Your task to perform on an android device: Search for the best rated 4K TV on Best Buy. Image 0: 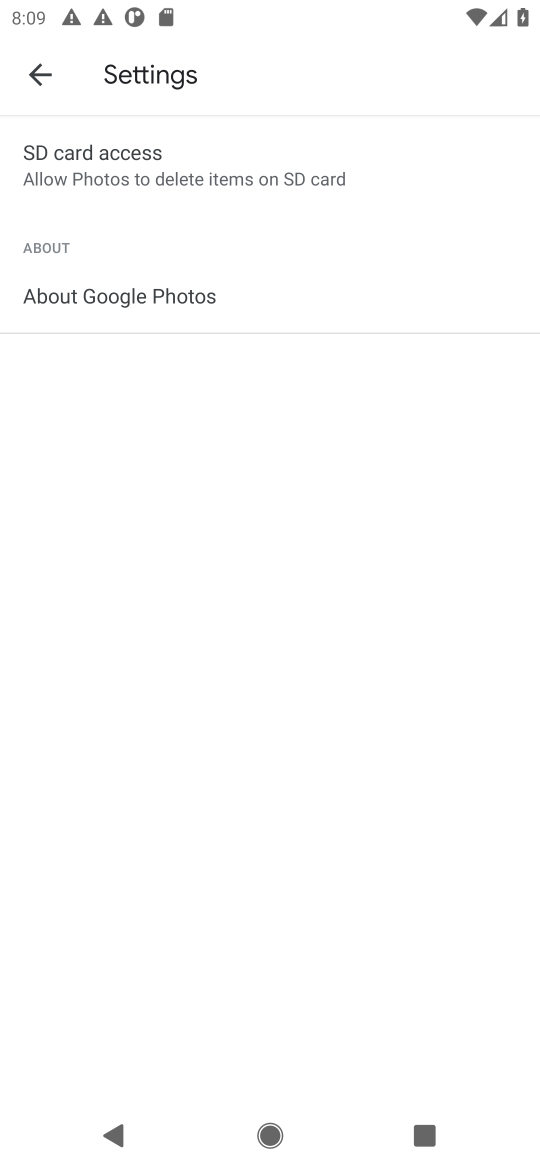
Step 0: press home button
Your task to perform on an android device: Search for the best rated 4K TV on Best Buy. Image 1: 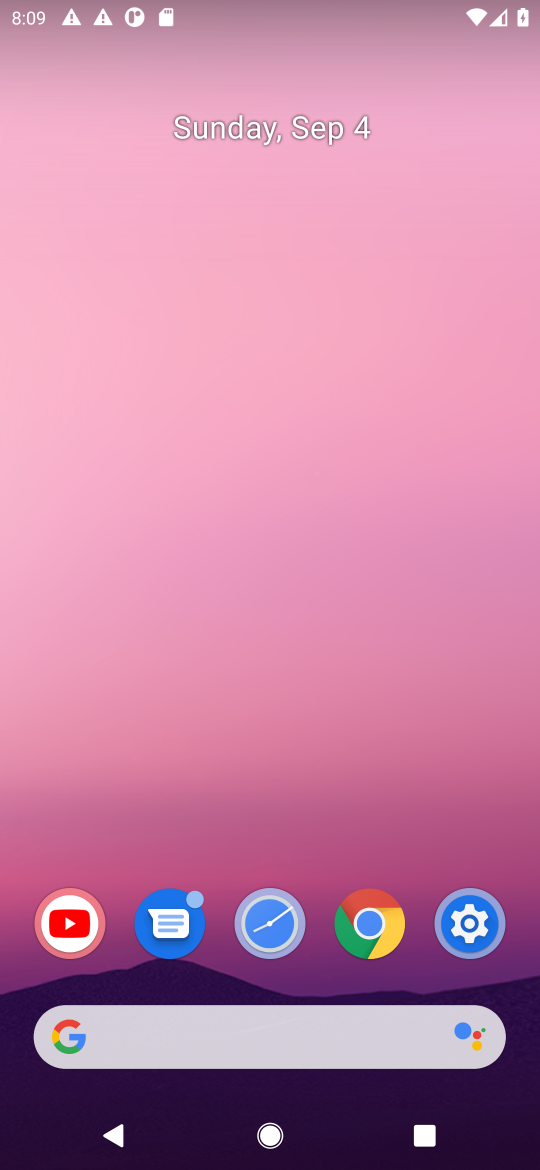
Step 1: click (384, 933)
Your task to perform on an android device: Search for the best rated 4K TV on Best Buy. Image 2: 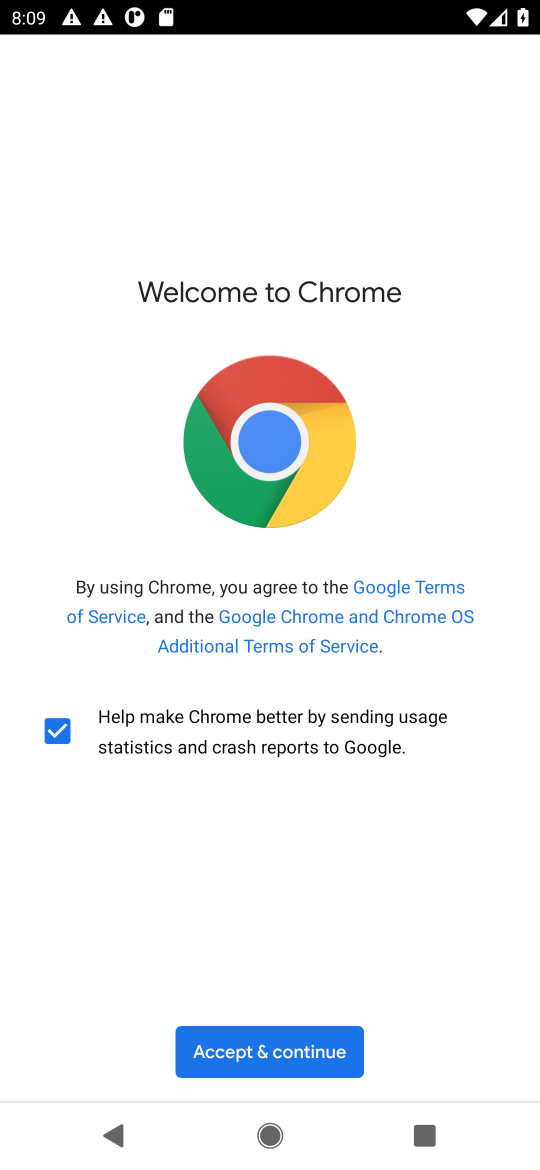
Step 2: click (260, 1063)
Your task to perform on an android device: Search for the best rated 4K TV on Best Buy. Image 3: 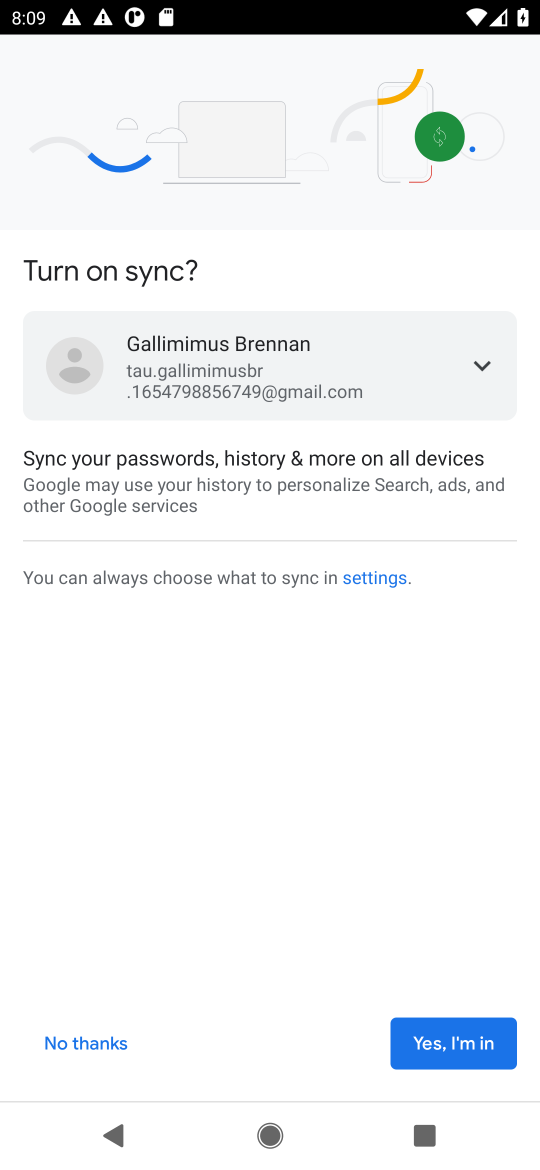
Step 3: click (465, 1021)
Your task to perform on an android device: Search for the best rated 4K TV on Best Buy. Image 4: 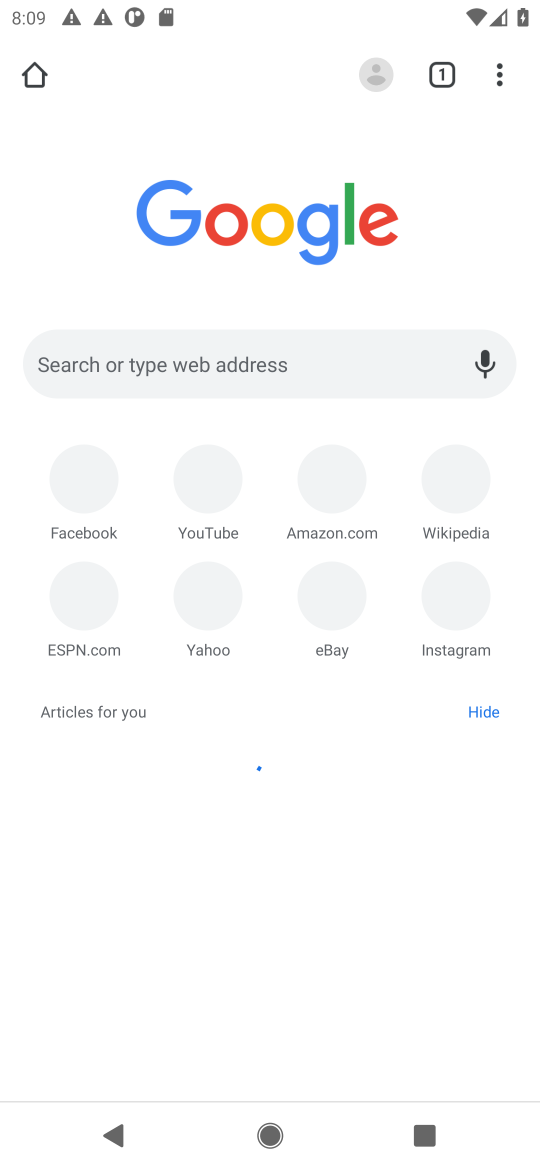
Step 4: click (295, 349)
Your task to perform on an android device: Search for the best rated 4K TV on Best Buy. Image 5: 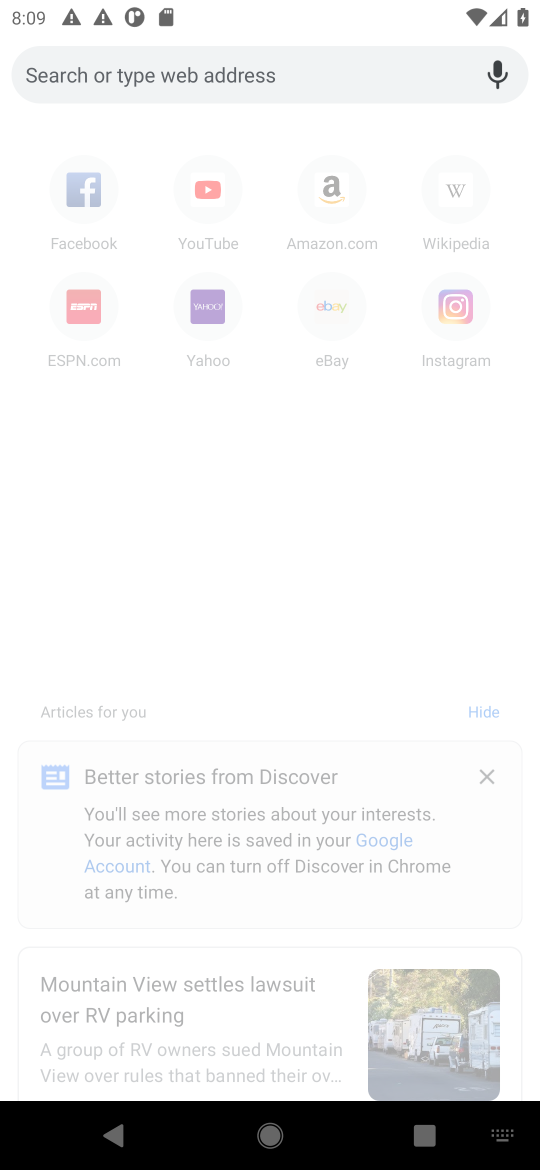
Step 5: click (220, 68)
Your task to perform on an android device: Search for the best rated 4K TV on Best Buy. Image 6: 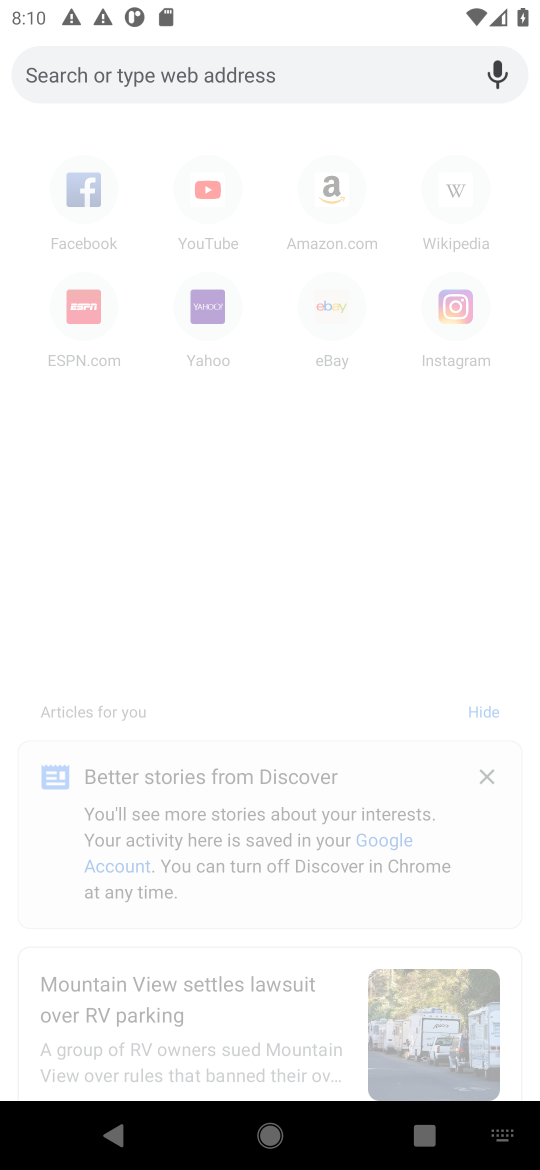
Step 6: type "bestbuy"
Your task to perform on an android device: Search for the best rated 4K TV on Best Buy. Image 7: 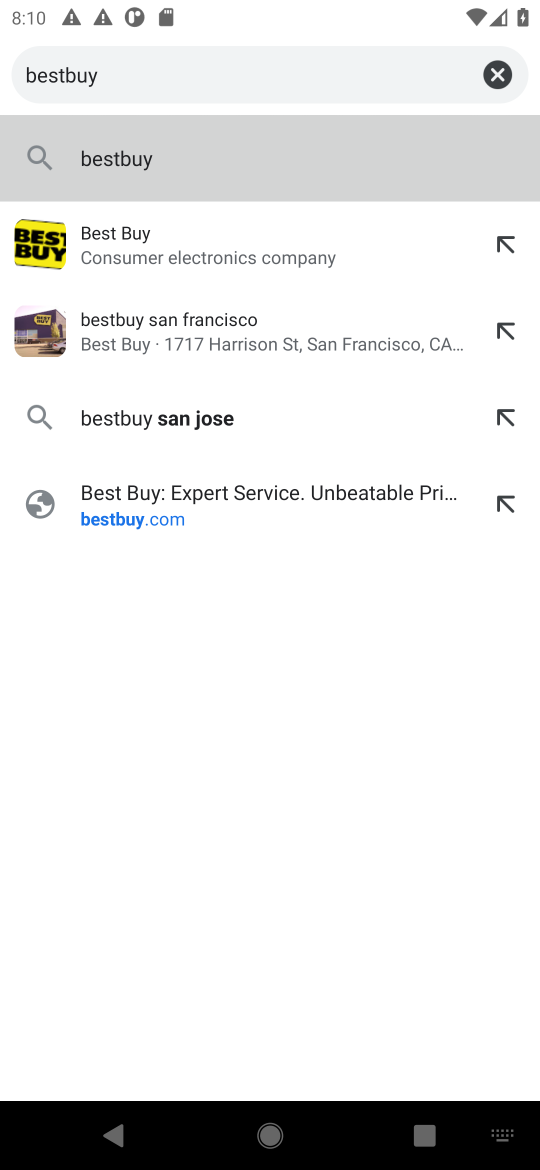
Step 7: click (149, 235)
Your task to perform on an android device: Search for the best rated 4K TV on Best Buy. Image 8: 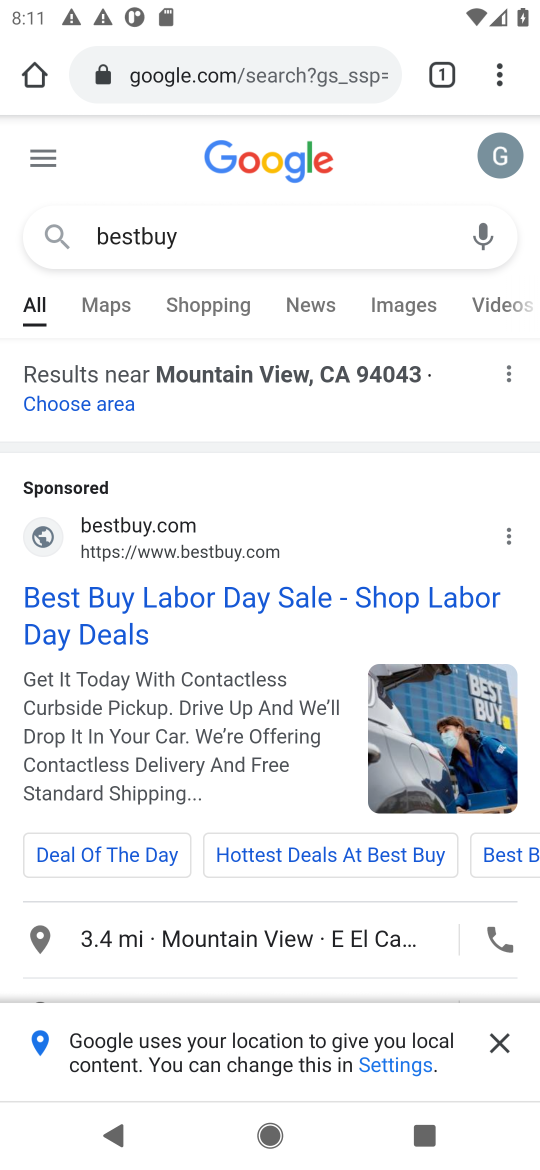
Step 8: click (266, 600)
Your task to perform on an android device: Search for the best rated 4K TV on Best Buy. Image 9: 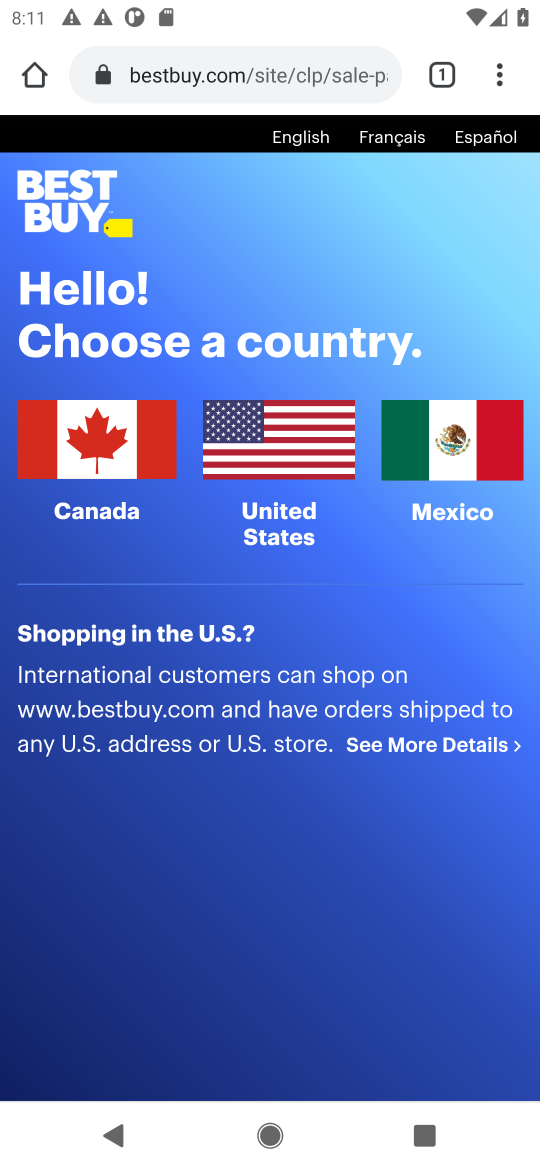
Step 9: click (278, 421)
Your task to perform on an android device: Search for the best rated 4K TV on Best Buy. Image 10: 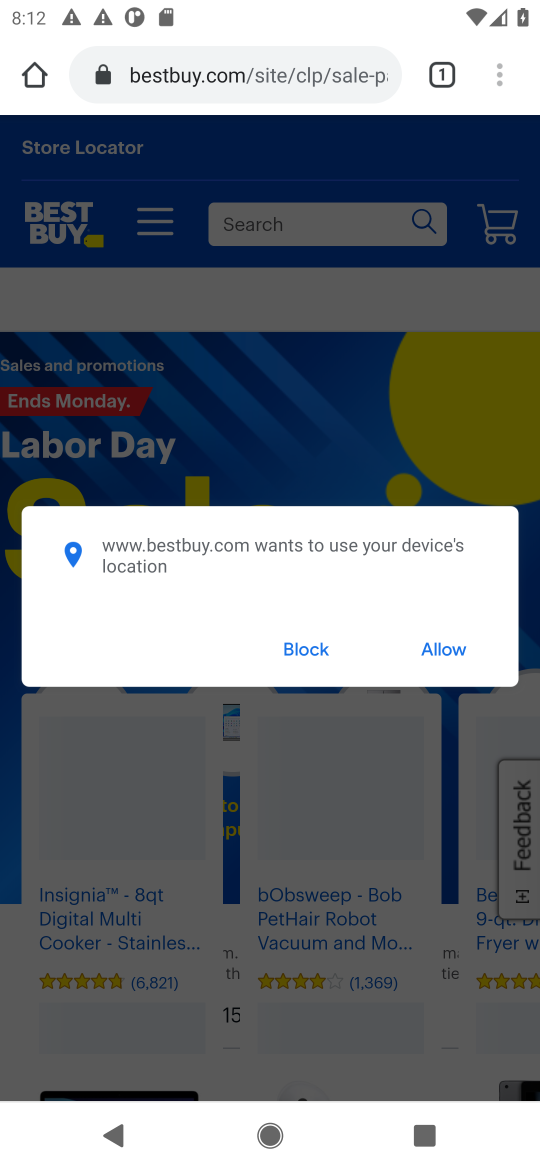
Step 10: click (452, 659)
Your task to perform on an android device: Search for the best rated 4K TV on Best Buy. Image 11: 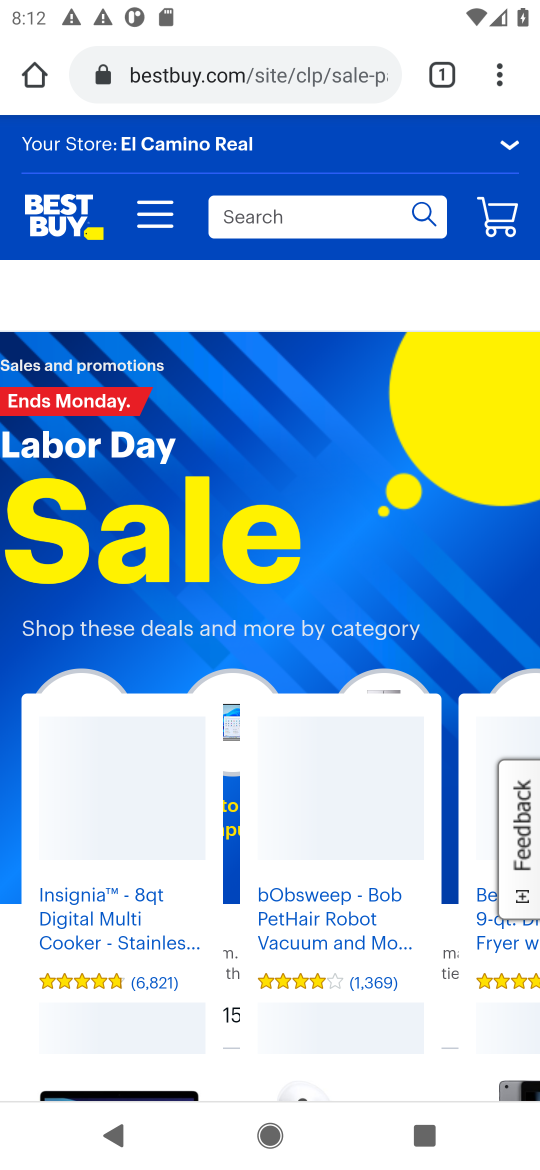
Step 11: click (376, 226)
Your task to perform on an android device: Search for the best rated 4K TV on Best Buy. Image 12: 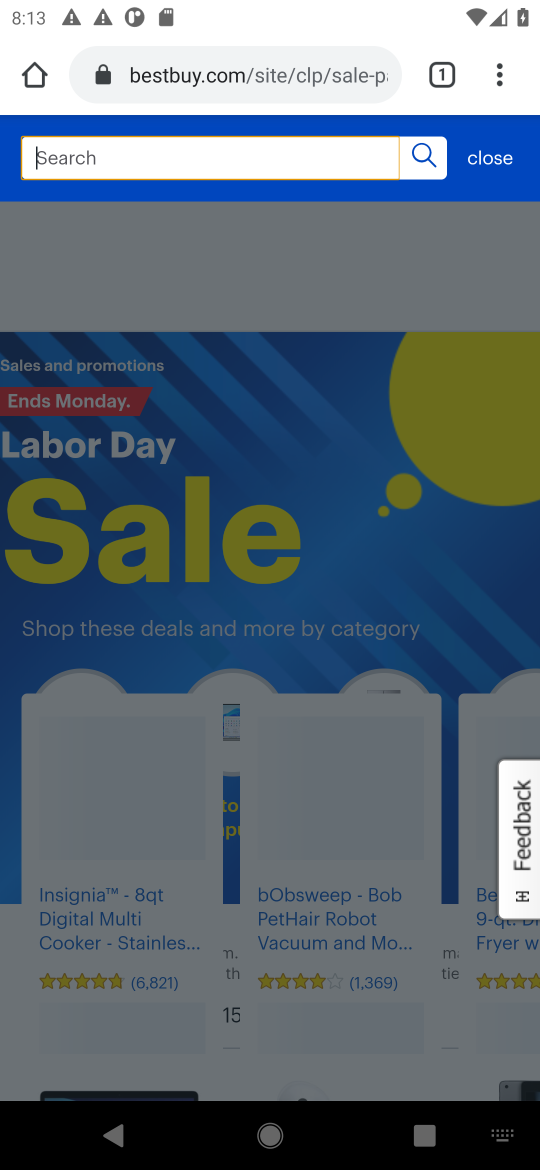
Step 12: type "4k tv"
Your task to perform on an android device: Search for the best rated 4K TV on Best Buy. Image 13: 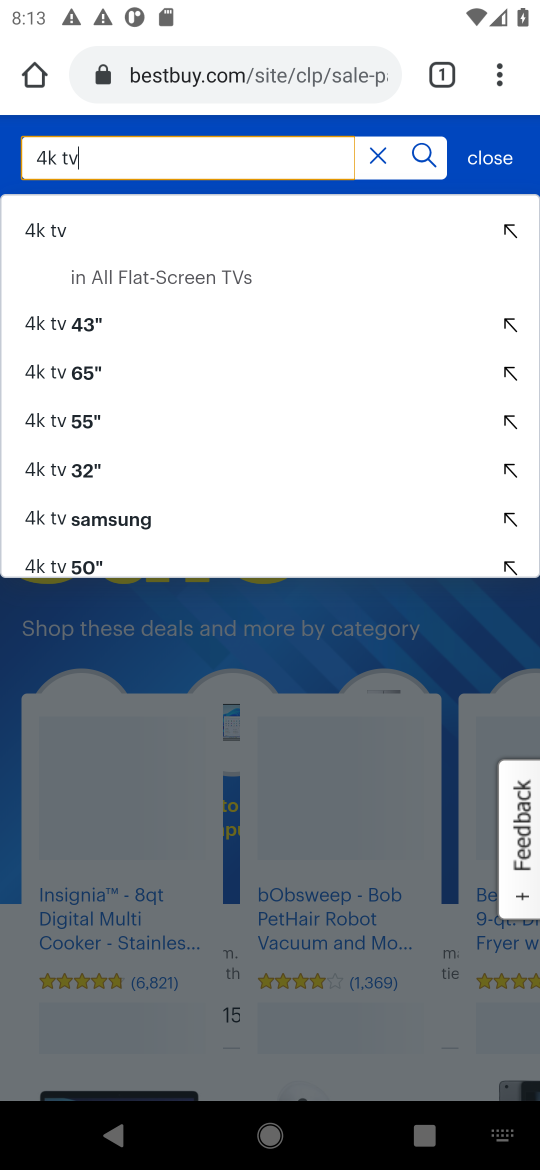
Step 13: click (430, 161)
Your task to perform on an android device: Search for the best rated 4K TV on Best Buy. Image 14: 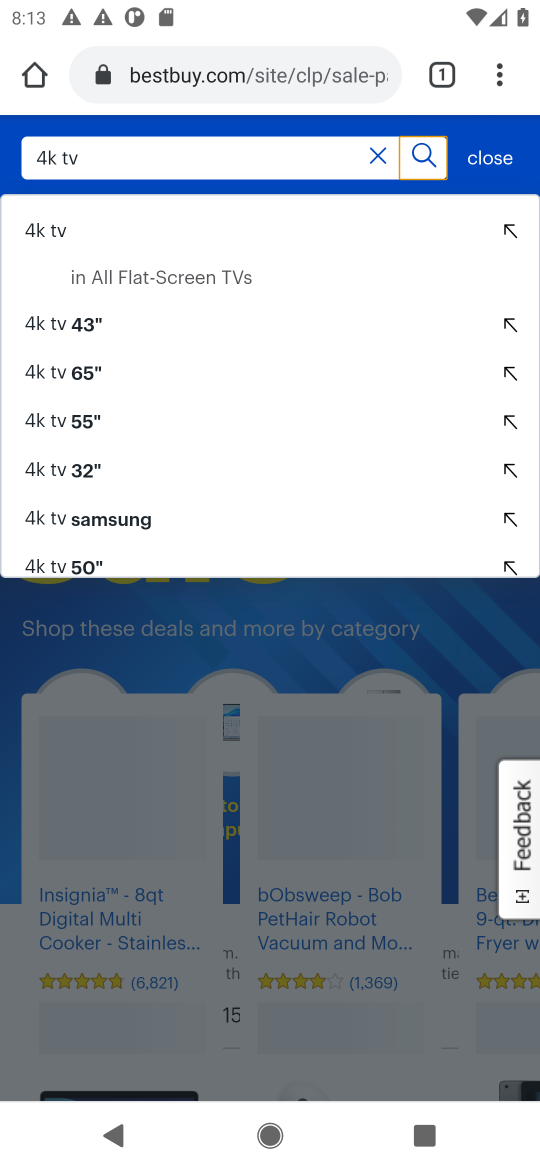
Step 14: click (327, 224)
Your task to perform on an android device: Search for the best rated 4K TV on Best Buy. Image 15: 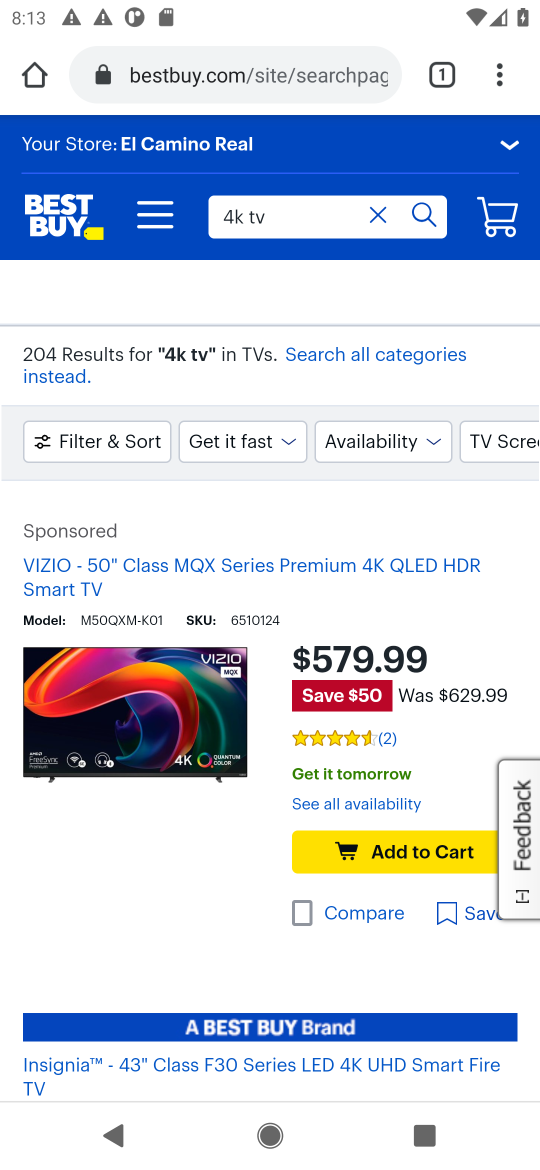
Step 15: click (136, 446)
Your task to perform on an android device: Search for the best rated 4K TV on Best Buy. Image 16: 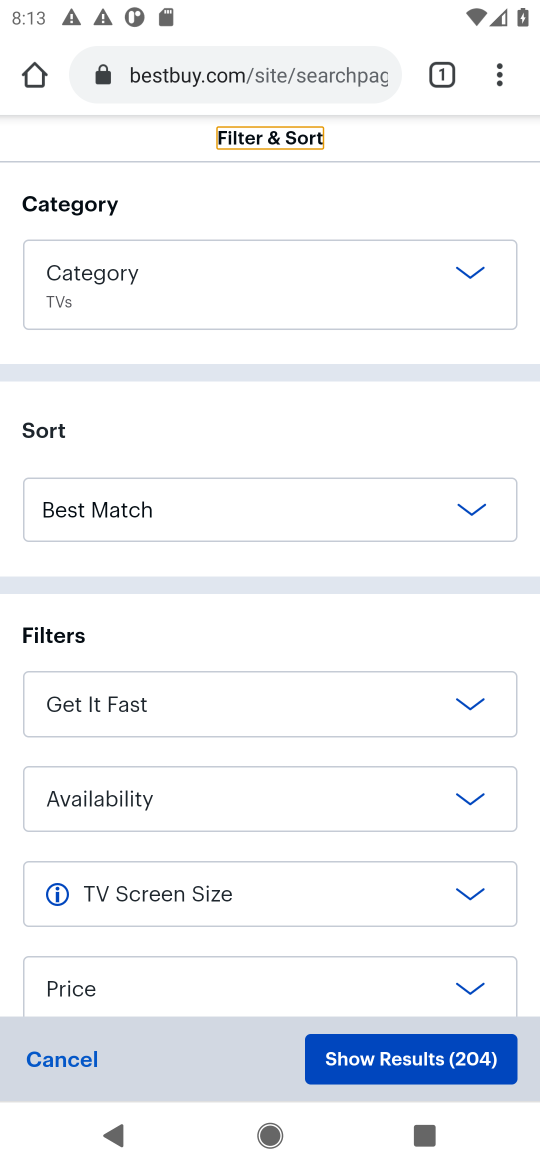
Step 16: drag from (282, 528) to (189, 179)
Your task to perform on an android device: Search for the best rated 4K TV on Best Buy. Image 17: 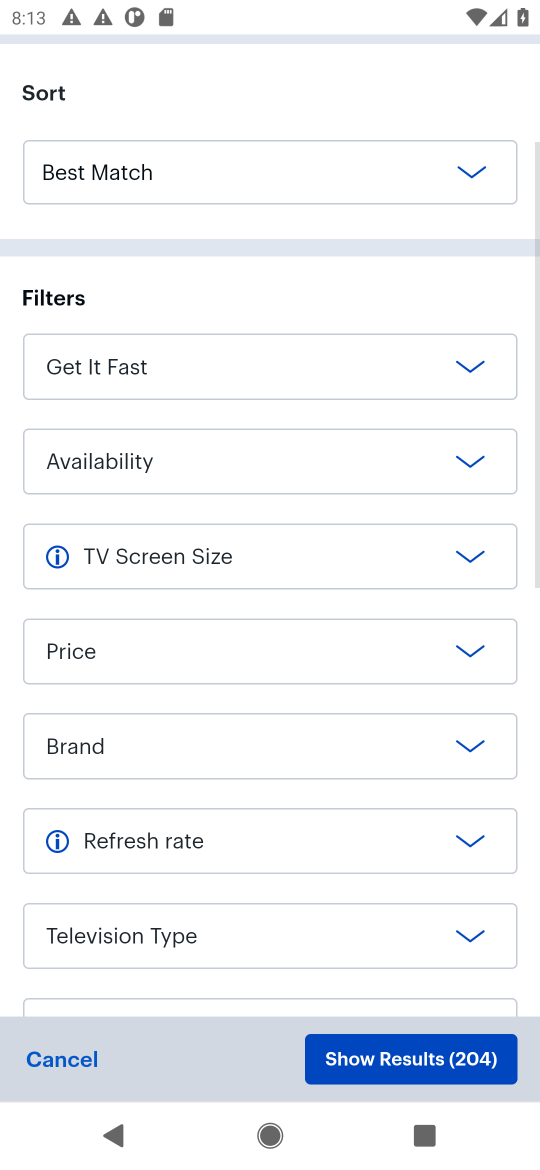
Step 17: drag from (352, 647) to (297, 4)
Your task to perform on an android device: Search for the best rated 4K TV on Best Buy. Image 18: 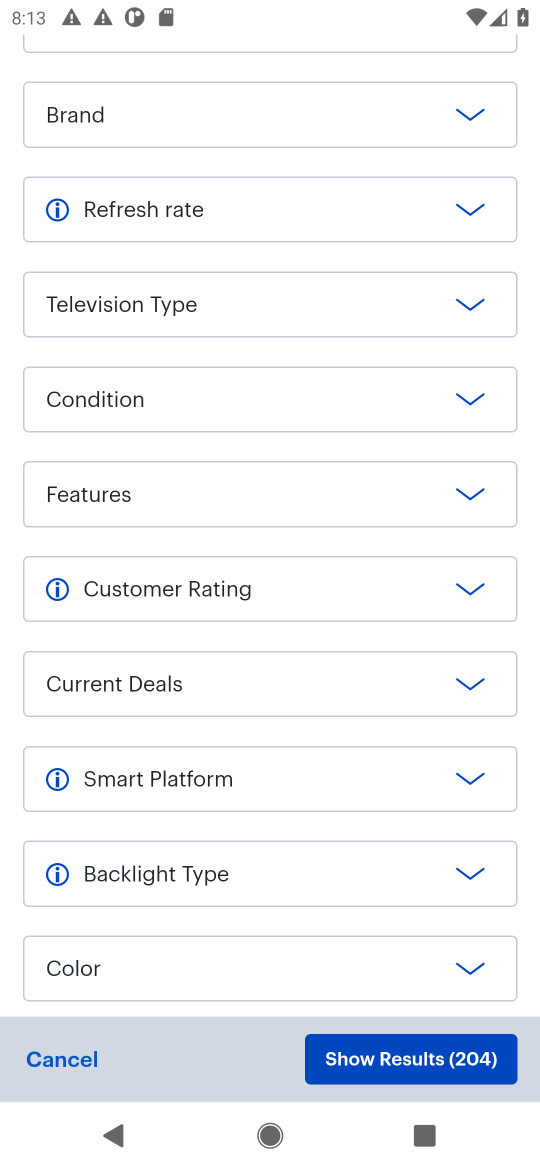
Step 18: drag from (342, 812) to (200, 172)
Your task to perform on an android device: Search for the best rated 4K TV on Best Buy. Image 19: 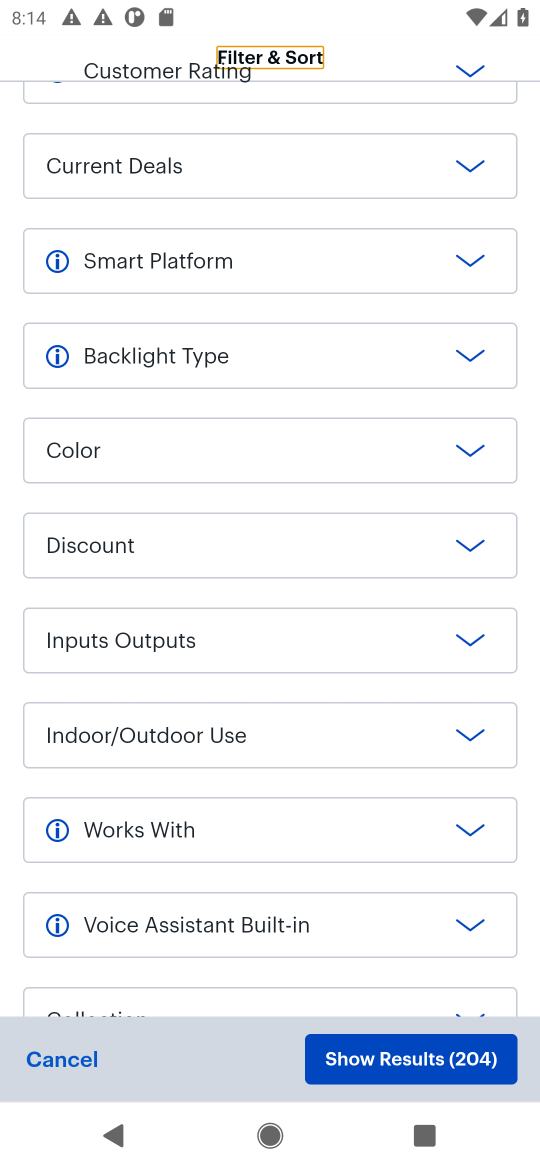
Step 19: drag from (307, 945) to (192, 163)
Your task to perform on an android device: Search for the best rated 4K TV on Best Buy. Image 20: 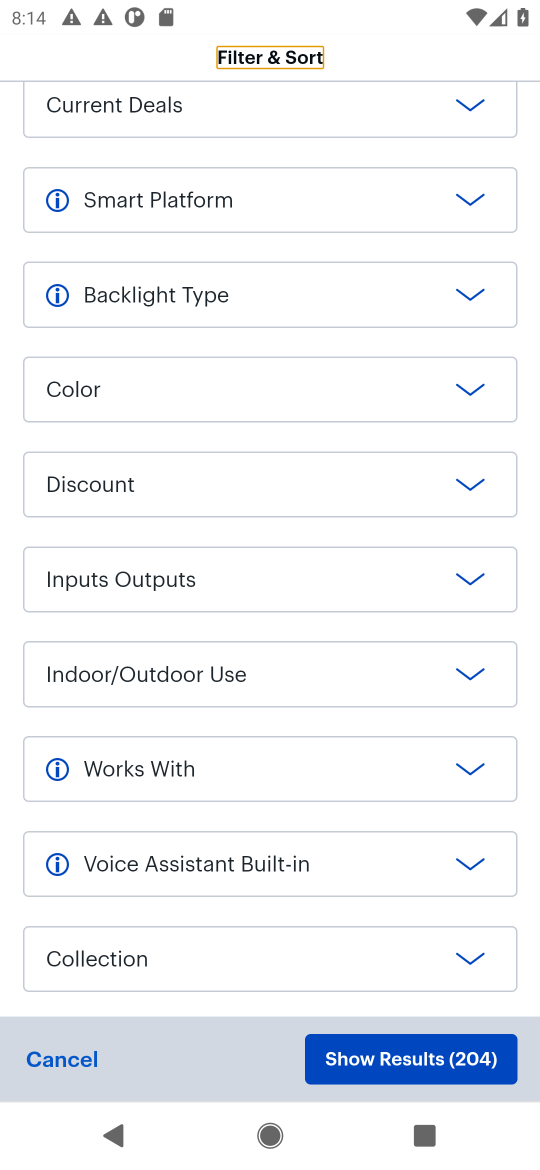
Step 20: drag from (289, 382) to (370, 1119)
Your task to perform on an android device: Search for the best rated 4K TV on Best Buy. Image 21: 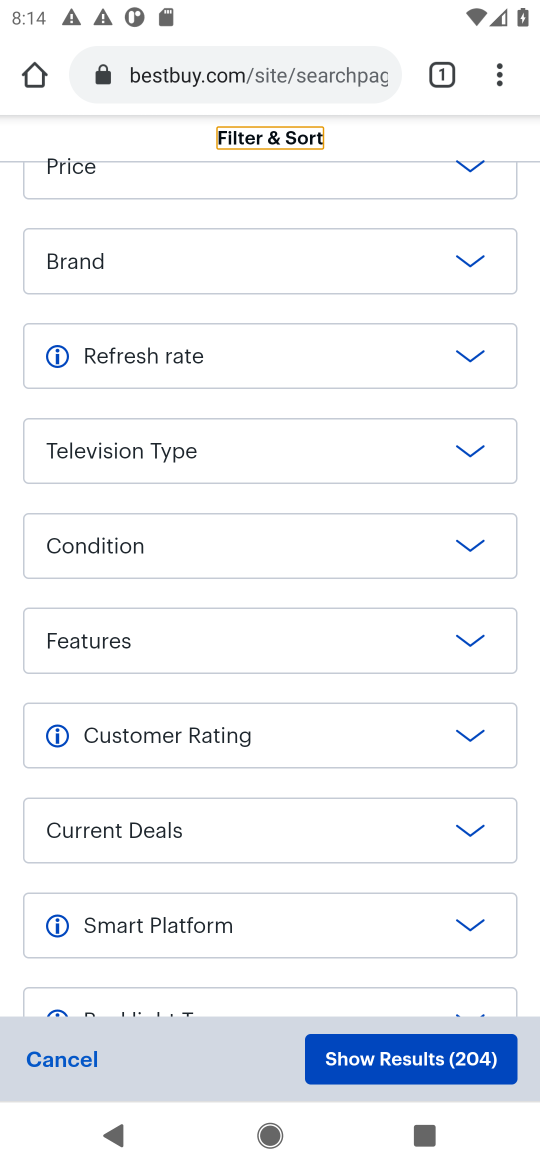
Step 21: drag from (139, 229) to (280, 969)
Your task to perform on an android device: Search for the best rated 4K TV on Best Buy. Image 22: 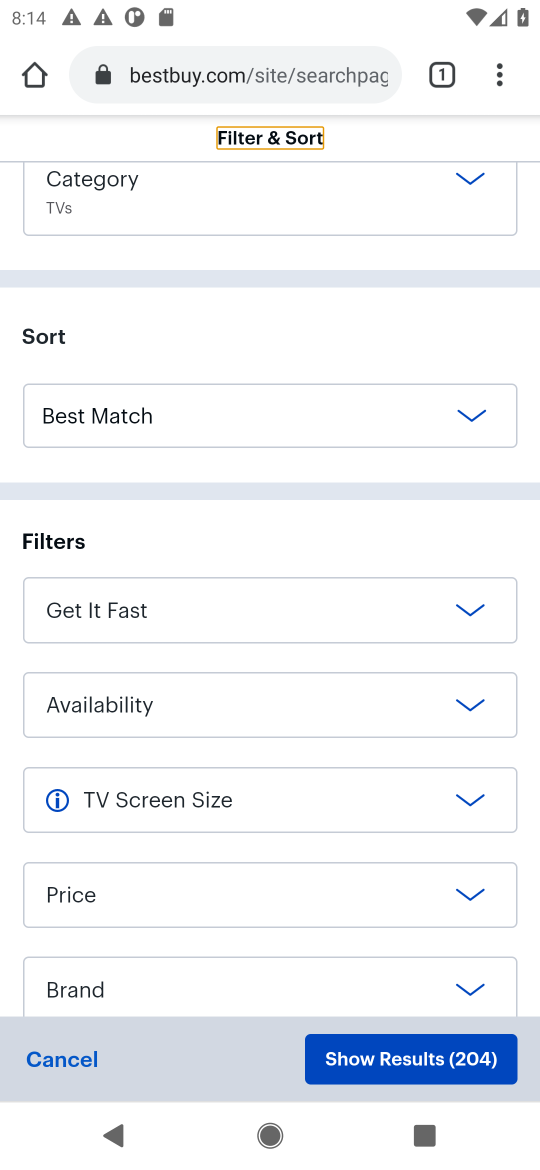
Step 22: click (204, 435)
Your task to perform on an android device: Search for the best rated 4K TV on Best Buy. Image 23: 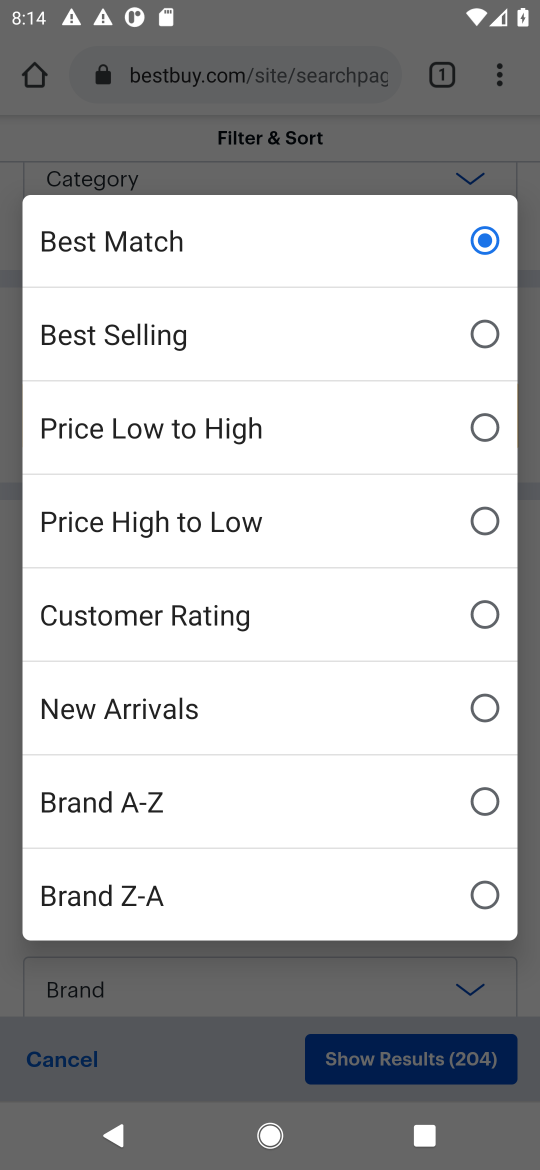
Step 23: click (175, 333)
Your task to perform on an android device: Search for the best rated 4K TV on Best Buy. Image 24: 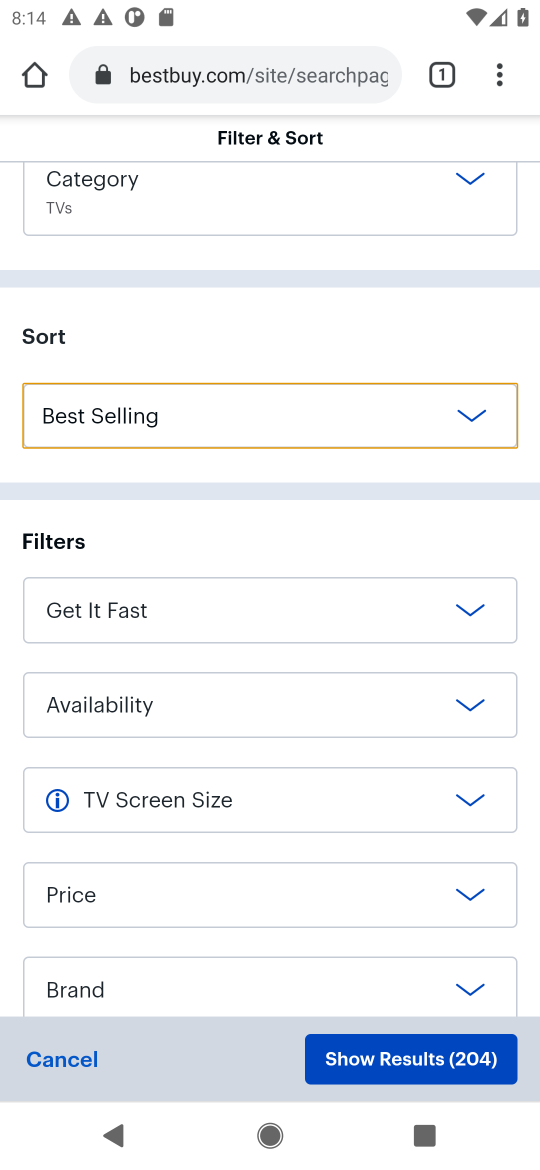
Step 24: click (458, 1069)
Your task to perform on an android device: Search for the best rated 4K TV on Best Buy. Image 25: 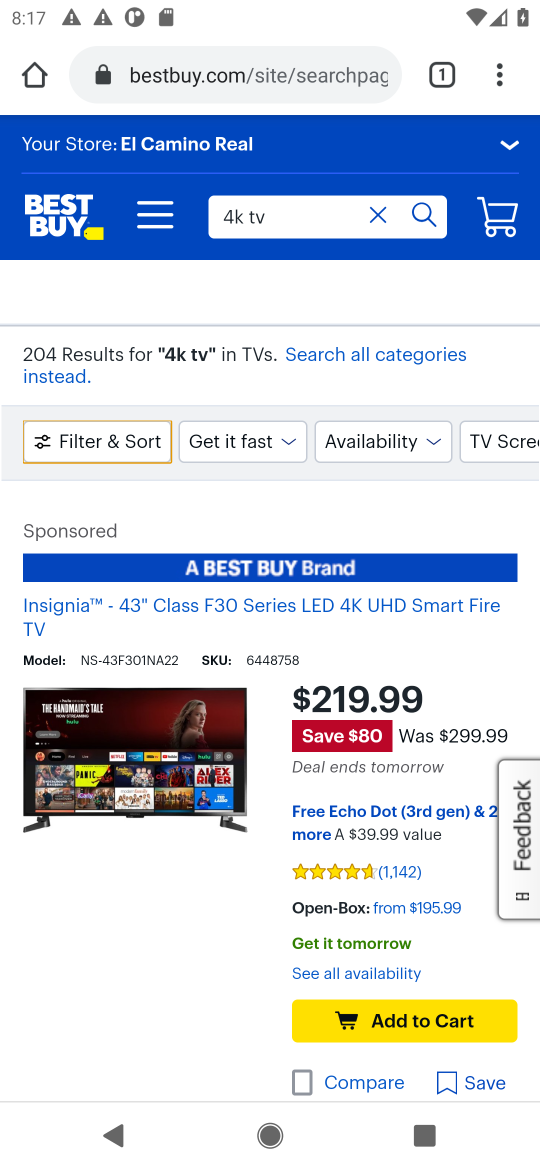
Step 25: task complete